Your task to perform on an android device: visit the assistant section in the google photos Image 0: 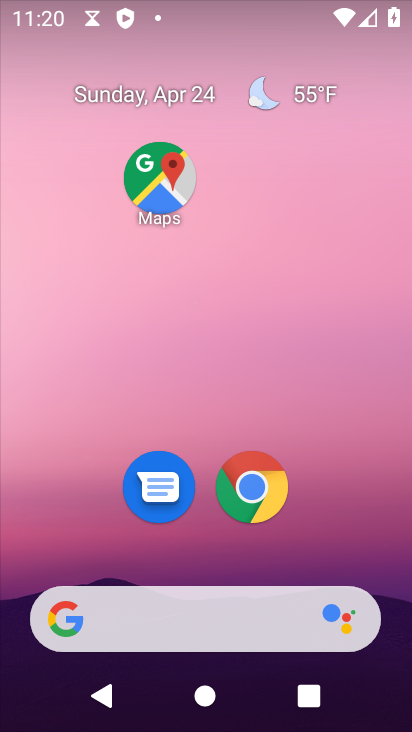
Step 0: drag from (302, 550) to (327, 229)
Your task to perform on an android device: visit the assistant section in the google photos Image 1: 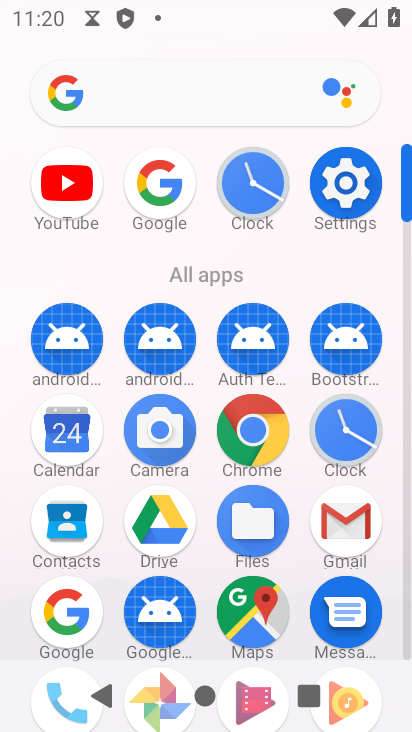
Step 1: drag from (204, 478) to (210, 186)
Your task to perform on an android device: visit the assistant section in the google photos Image 2: 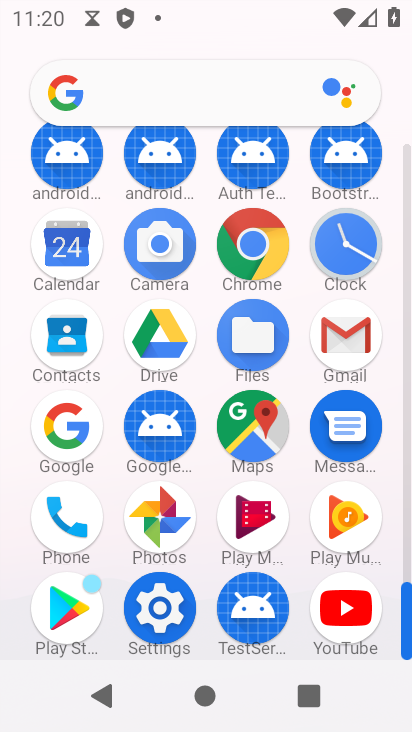
Step 2: click (156, 529)
Your task to perform on an android device: visit the assistant section in the google photos Image 3: 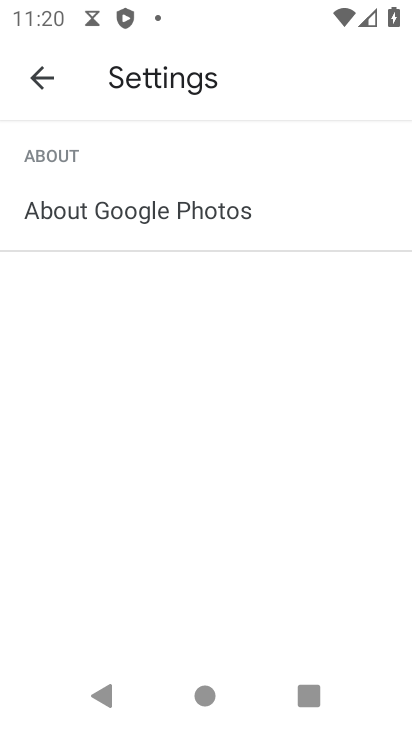
Step 3: click (25, 75)
Your task to perform on an android device: visit the assistant section in the google photos Image 4: 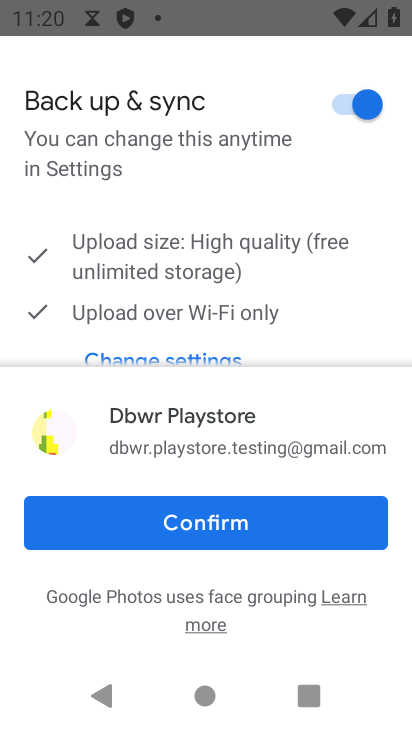
Step 4: click (206, 528)
Your task to perform on an android device: visit the assistant section in the google photos Image 5: 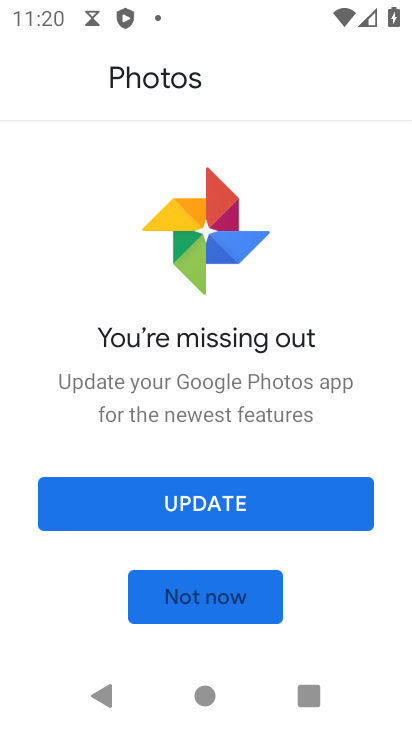
Step 5: click (205, 598)
Your task to perform on an android device: visit the assistant section in the google photos Image 6: 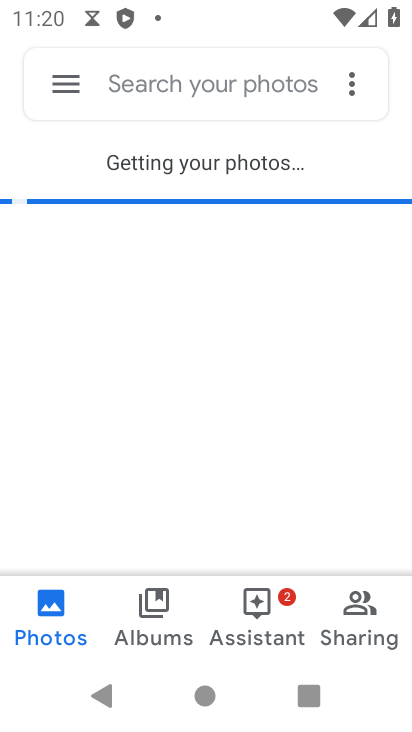
Step 6: click (261, 624)
Your task to perform on an android device: visit the assistant section in the google photos Image 7: 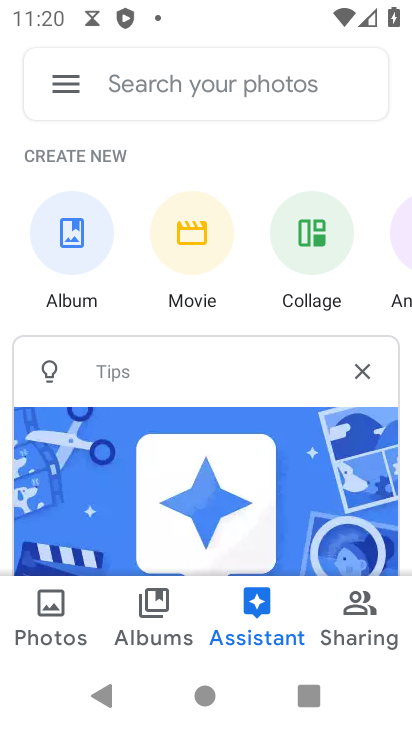
Step 7: task complete